Your task to perform on an android device: Search for vegetarian restaurants on Maps Image 0: 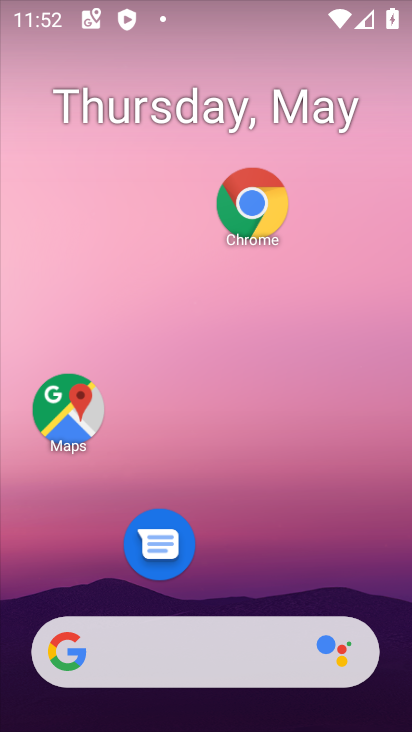
Step 0: drag from (240, 566) to (195, 65)
Your task to perform on an android device: Search for vegetarian restaurants on Maps Image 1: 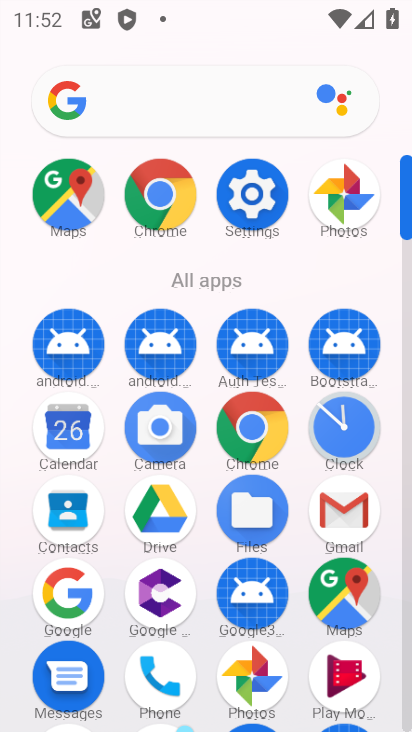
Step 1: click (355, 589)
Your task to perform on an android device: Search for vegetarian restaurants on Maps Image 2: 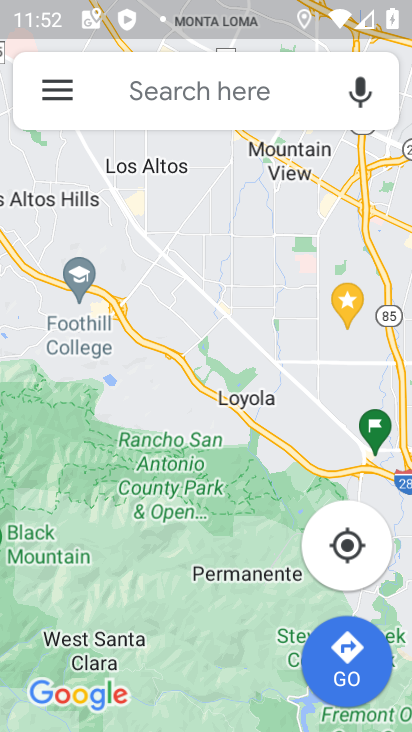
Step 2: click (193, 96)
Your task to perform on an android device: Search for vegetarian restaurants on Maps Image 3: 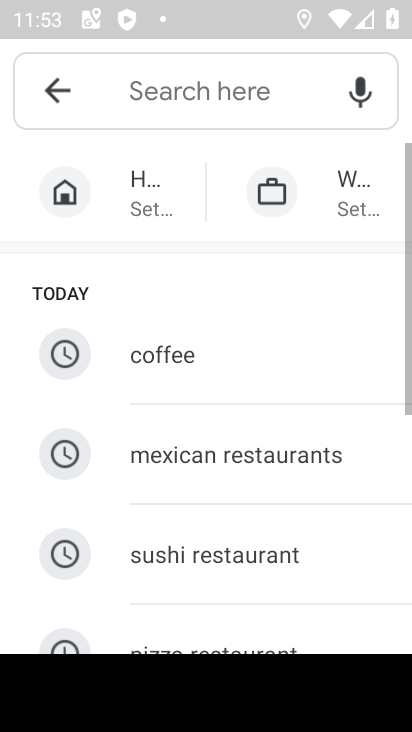
Step 3: drag from (211, 596) to (260, 293)
Your task to perform on an android device: Search for vegetarian restaurants on Maps Image 4: 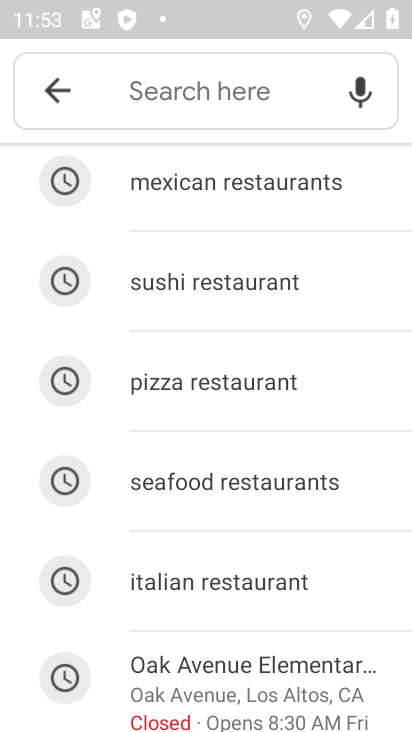
Step 4: drag from (225, 601) to (248, 278)
Your task to perform on an android device: Search for vegetarian restaurants on Maps Image 5: 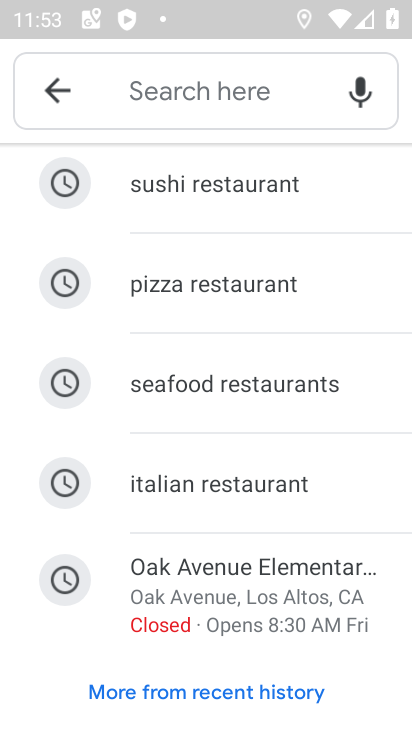
Step 5: click (174, 106)
Your task to perform on an android device: Search for vegetarian restaurants on Maps Image 6: 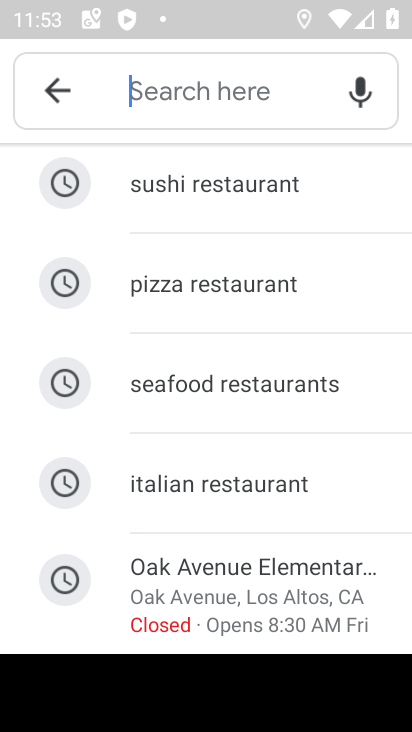
Step 6: type "vegetarian restaurants"
Your task to perform on an android device: Search for vegetarian restaurants on Maps Image 7: 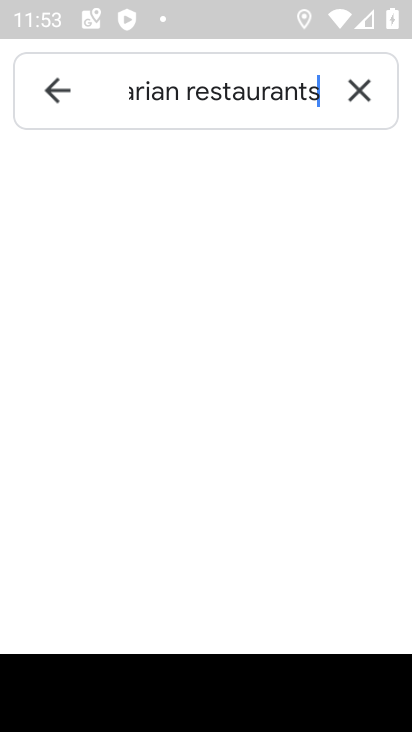
Step 7: type ""
Your task to perform on an android device: Search for vegetarian restaurants on Maps Image 8: 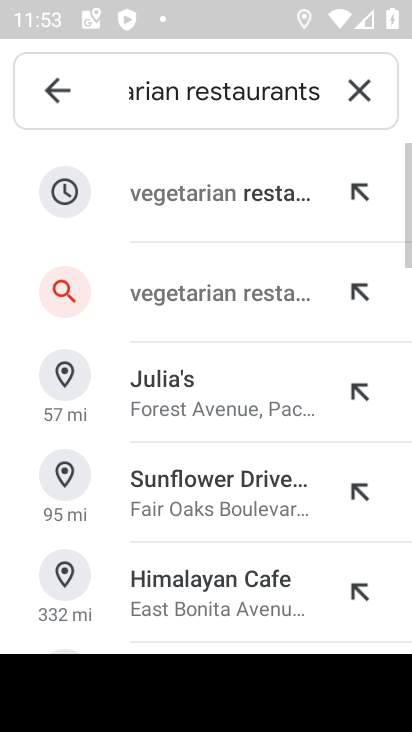
Step 8: click (191, 217)
Your task to perform on an android device: Search for vegetarian restaurants on Maps Image 9: 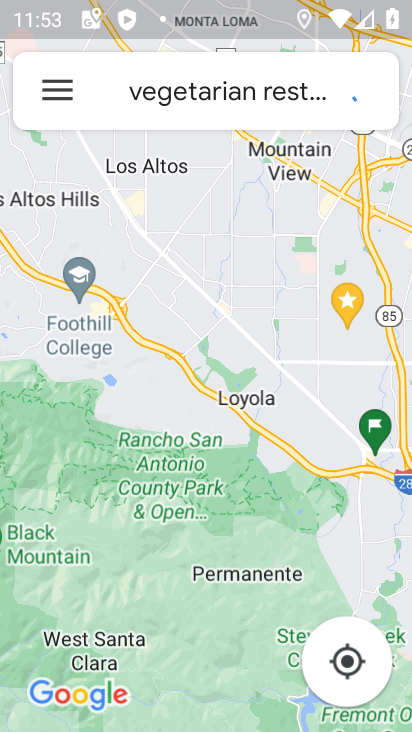
Step 9: task complete